Your task to perform on an android device: Open Amazon Image 0: 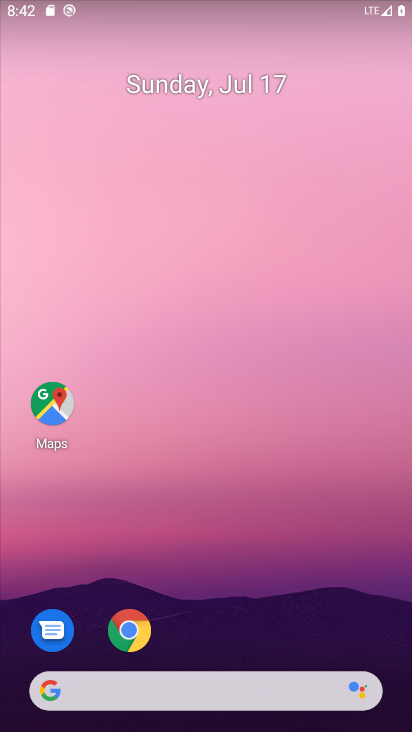
Step 0: drag from (186, 635) to (171, 1)
Your task to perform on an android device: Open Amazon Image 1: 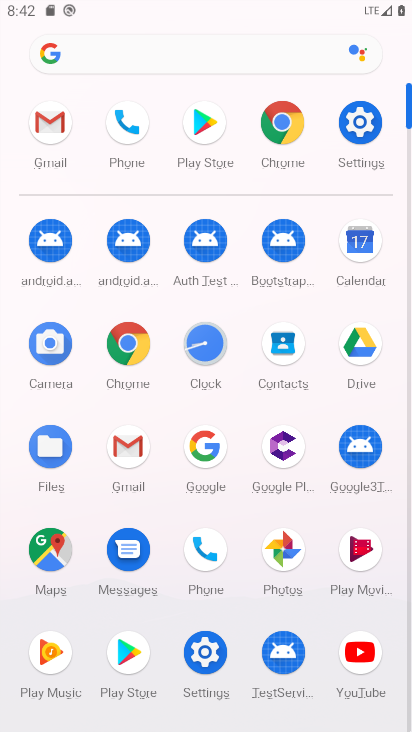
Step 1: click (286, 122)
Your task to perform on an android device: Open Amazon Image 2: 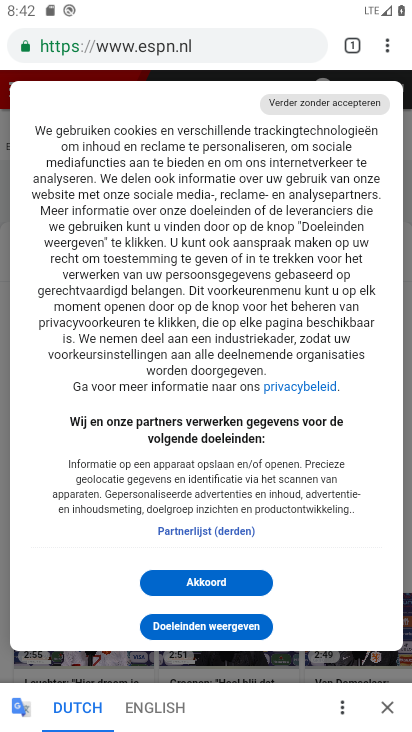
Step 2: click (209, 51)
Your task to perform on an android device: Open Amazon Image 3: 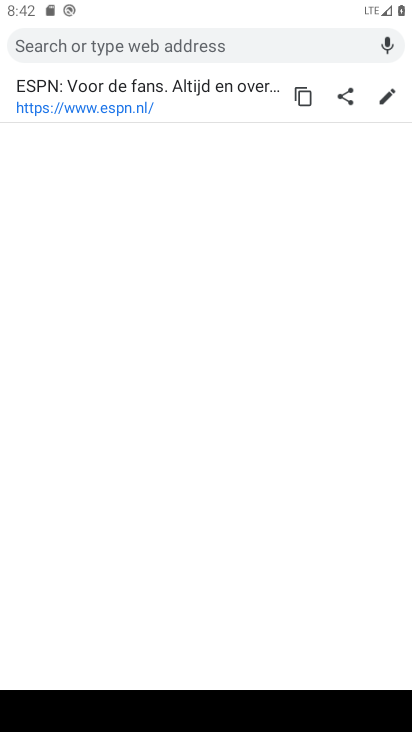
Step 3: type "Amazon.com"
Your task to perform on an android device: Open Amazon Image 4: 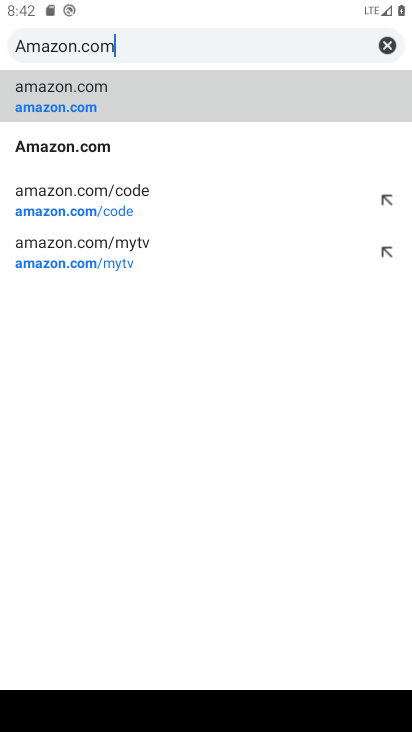
Step 4: click (69, 158)
Your task to perform on an android device: Open Amazon Image 5: 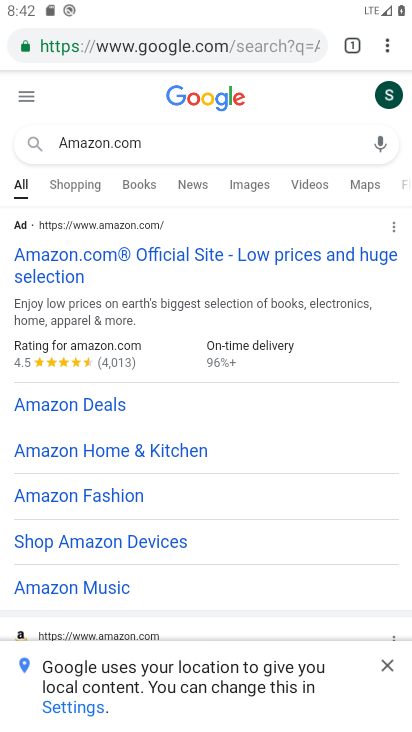
Step 5: task complete